Your task to perform on an android device: change notifications settings Image 0: 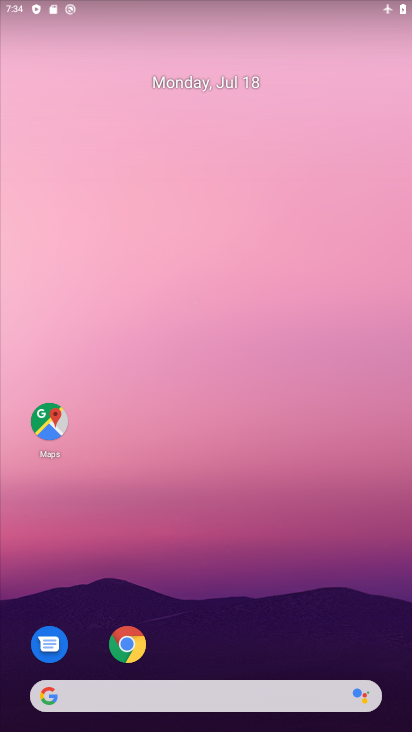
Step 0: drag from (341, 620) to (373, 130)
Your task to perform on an android device: change notifications settings Image 1: 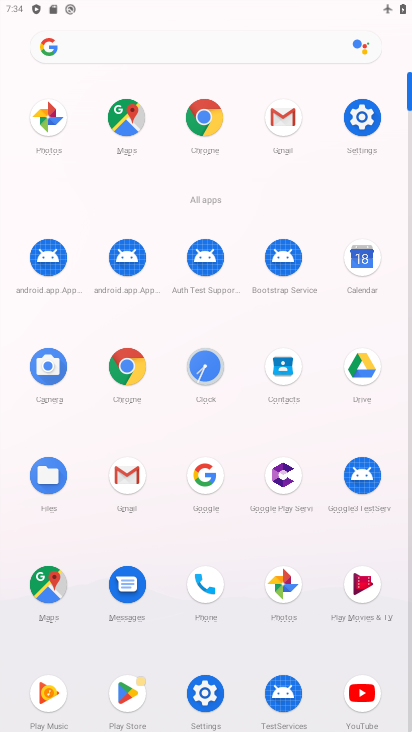
Step 1: click (360, 118)
Your task to perform on an android device: change notifications settings Image 2: 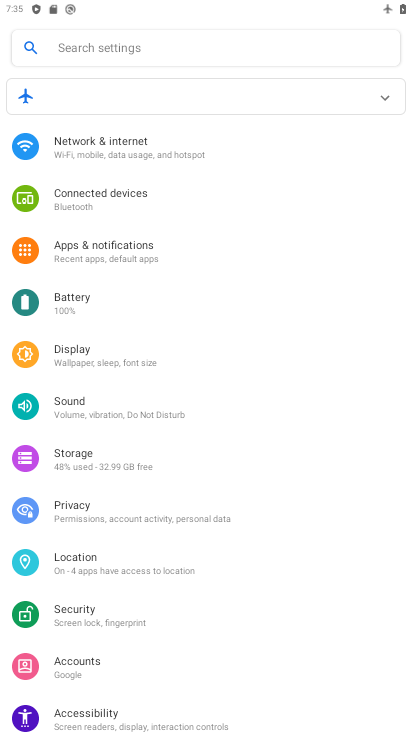
Step 2: drag from (325, 490) to (320, 431)
Your task to perform on an android device: change notifications settings Image 3: 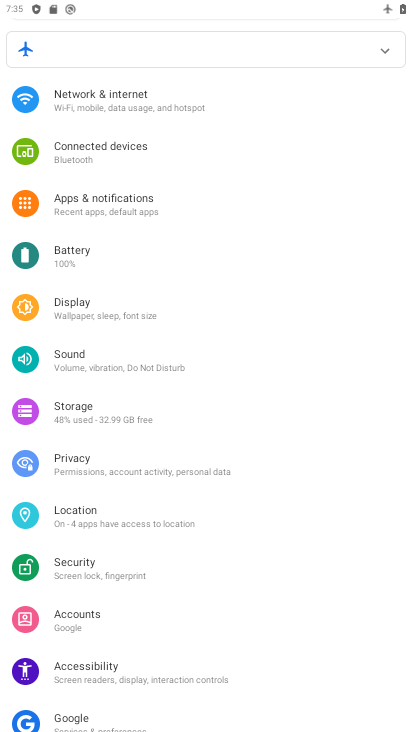
Step 3: drag from (322, 509) to (337, 369)
Your task to perform on an android device: change notifications settings Image 4: 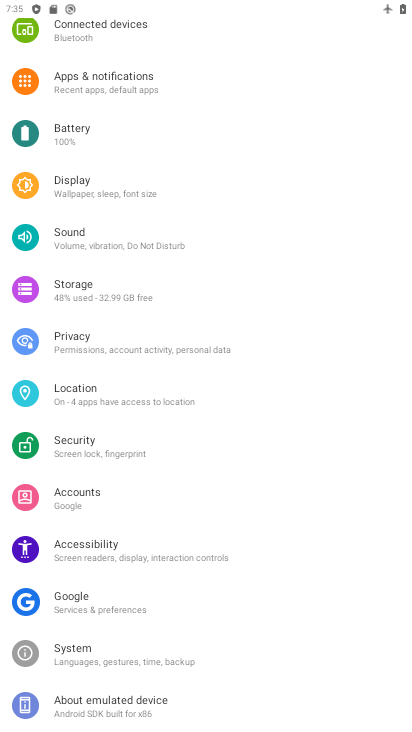
Step 4: drag from (309, 513) to (319, 418)
Your task to perform on an android device: change notifications settings Image 5: 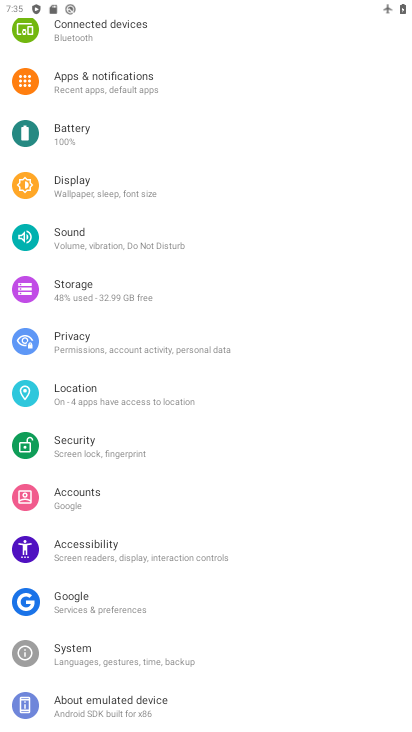
Step 5: drag from (313, 330) to (310, 399)
Your task to perform on an android device: change notifications settings Image 6: 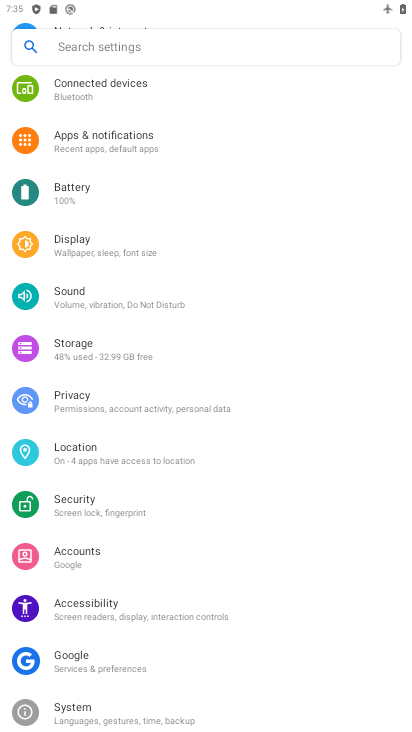
Step 6: drag from (312, 308) to (314, 388)
Your task to perform on an android device: change notifications settings Image 7: 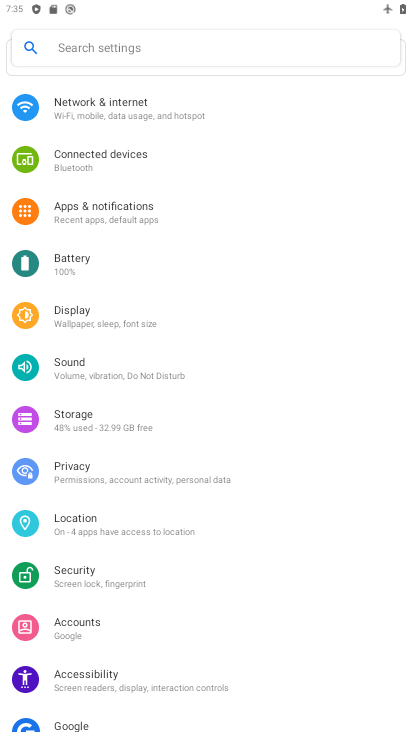
Step 7: drag from (330, 314) to (340, 457)
Your task to perform on an android device: change notifications settings Image 8: 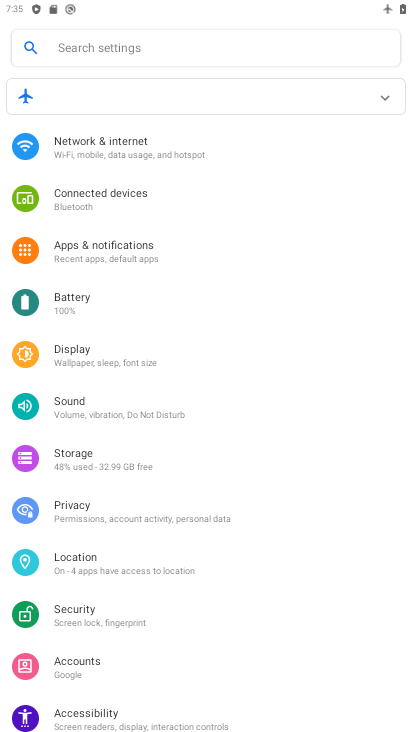
Step 8: click (163, 253)
Your task to perform on an android device: change notifications settings Image 9: 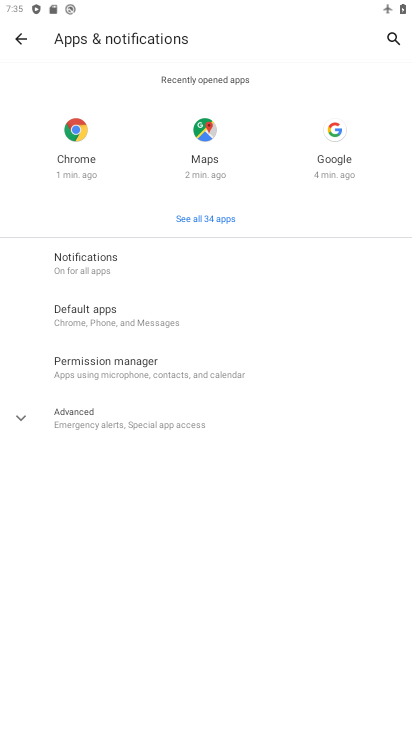
Step 9: click (151, 268)
Your task to perform on an android device: change notifications settings Image 10: 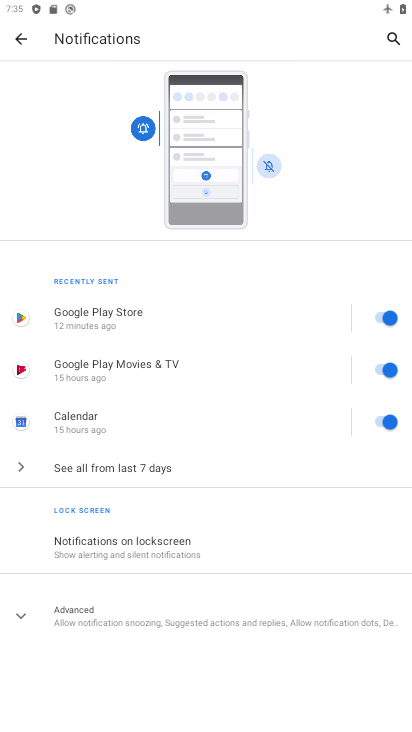
Step 10: drag from (219, 432) to (228, 360)
Your task to perform on an android device: change notifications settings Image 11: 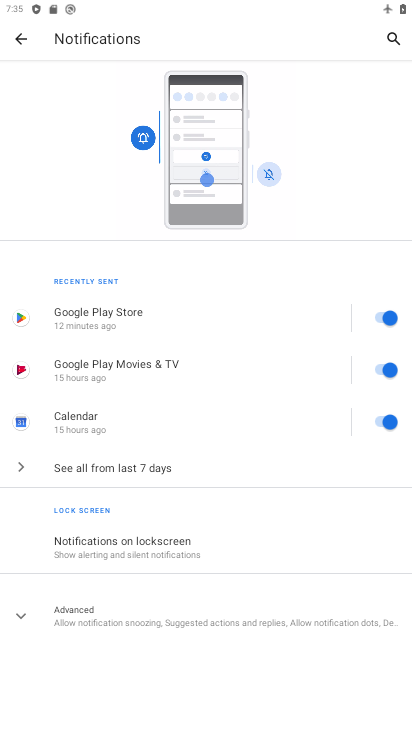
Step 11: click (392, 420)
Your task to perform on an android device: change notifications settings Image 12: 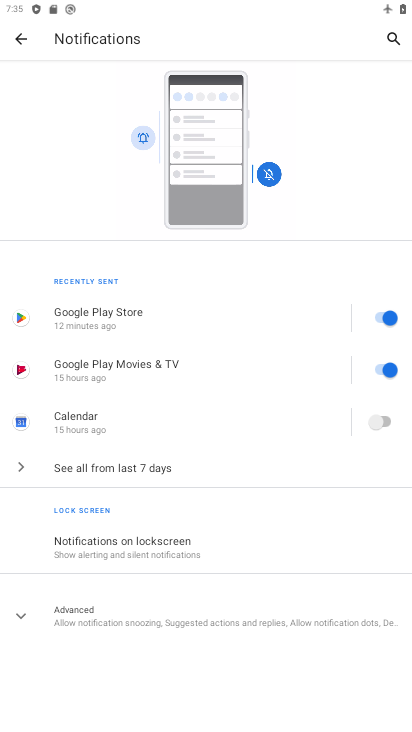
Step 12: click (394, 377)
Your task to perform on an android device: change notifications settings Image 13: 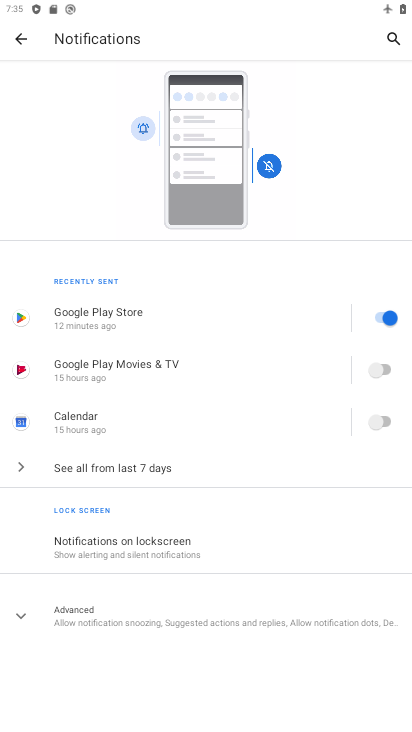
Step 13: click (390, 322)
Your task to perform on an android device: change notifications settings Image 14: 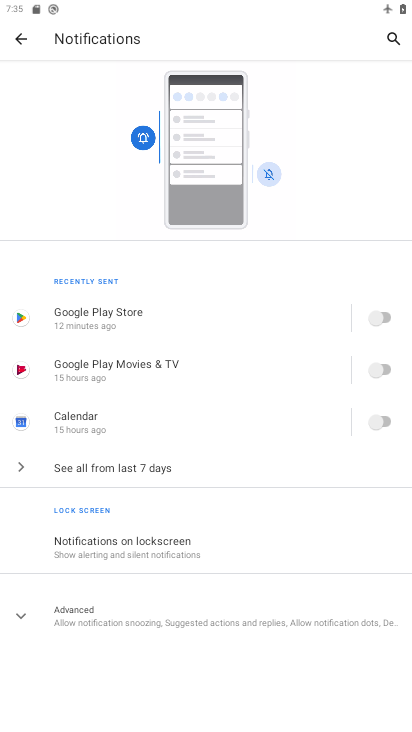
Step 14: task complete